Your task to perform on an android device: clear all cookies in the chrome app Image 0: 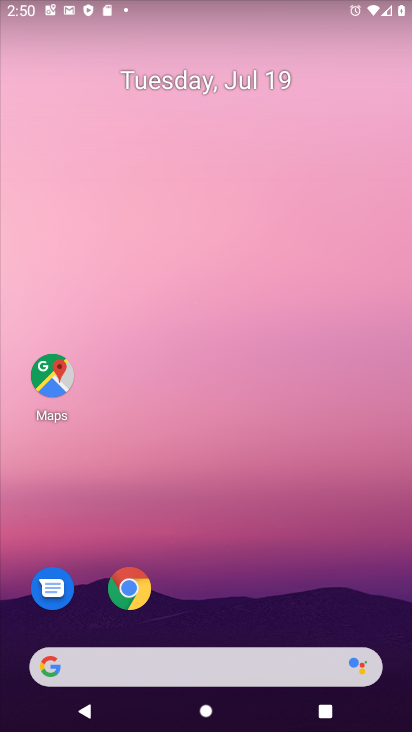
Step 0: drag from (253, 236) to (229, 116)
Your task to perform on an android device: clear all cookies in the chrome app Image 1: 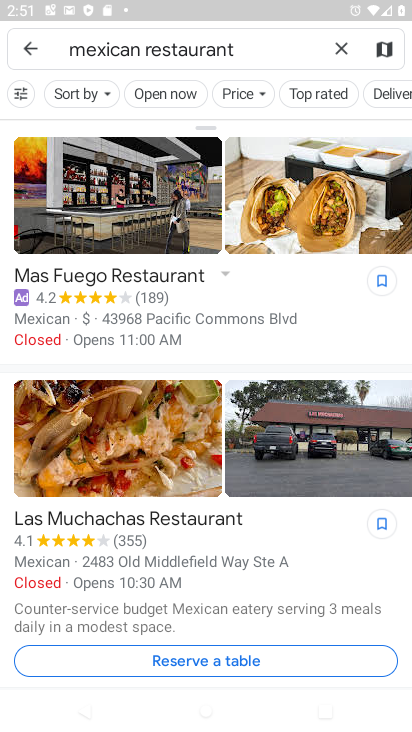
Step 1: press home button
Your task to perform on an android device: clear all cookies in the chrome app Image 2: 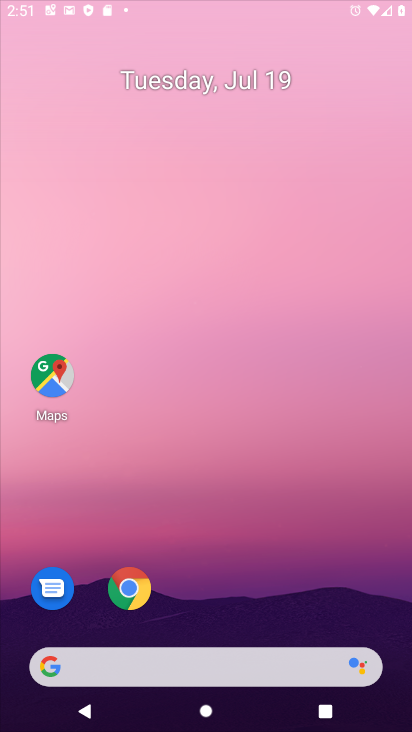
Step 2: drag from (375, 636) to (241, 103)
Your task to perform on an android device: clear all cookies in the chrome app Image 3: 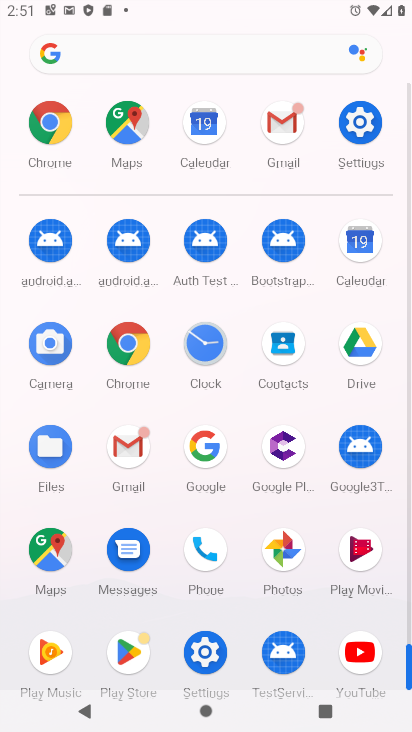
Step 3: click (131, 355)
Your task to perform on an android device: clear all cookies in the chrome app Image 4: 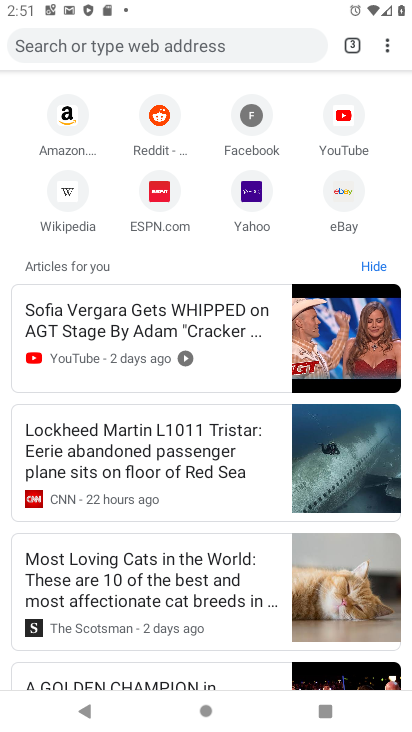
Step 4: click (385, 48)
Your task to perform on an android device: clear all cookies in the chrome app Image 5: 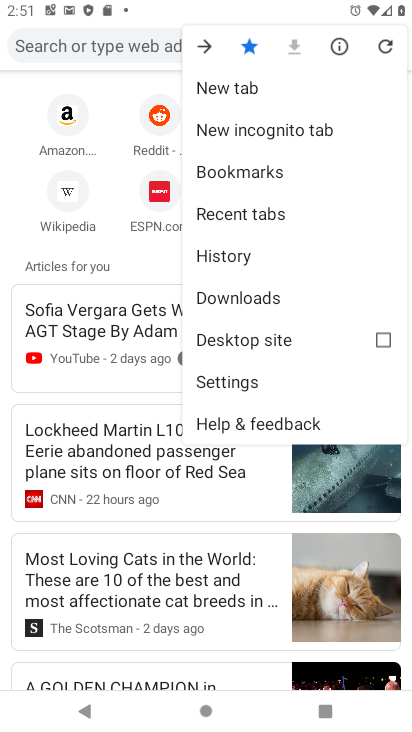
Step 5: click (233, 256)
Your task to perform on an android device: clear all cookies in the chrome app Image 6: 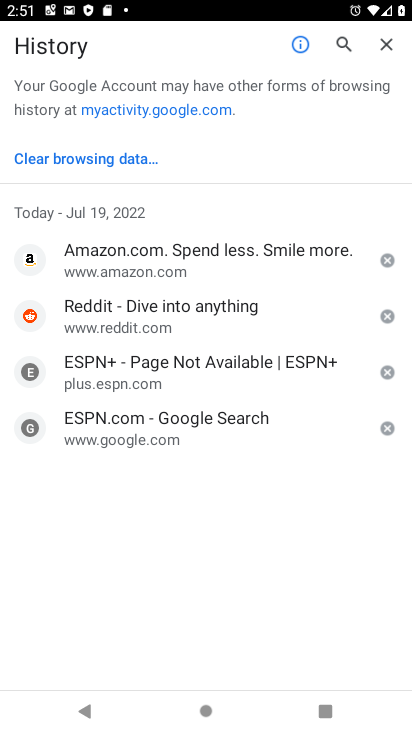
Step 6: click (115, 167)
Your task to perform on an android device: clear all cookies in the chrome app Image 7: 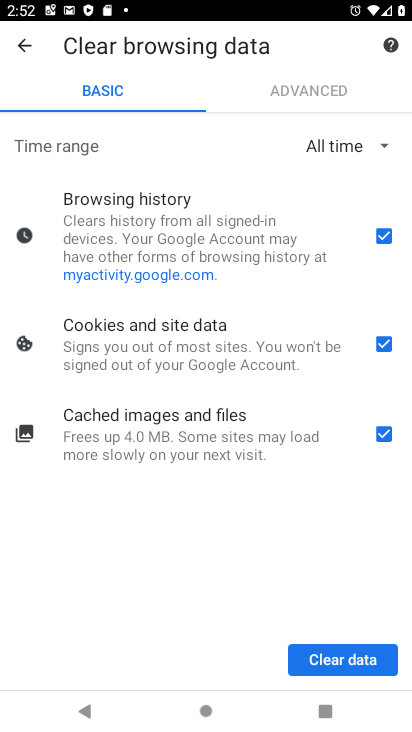
Step 7: click (329, 659)
Your task to perform on an android device: clear all cookies in the chrome app Image 8: 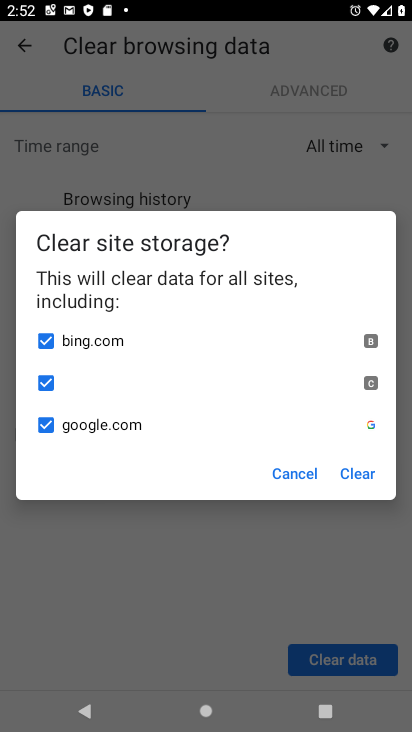
Step 8: click (355, 476)
Your task to perform on an android device: clear all cookies in the chrome app Image 9: 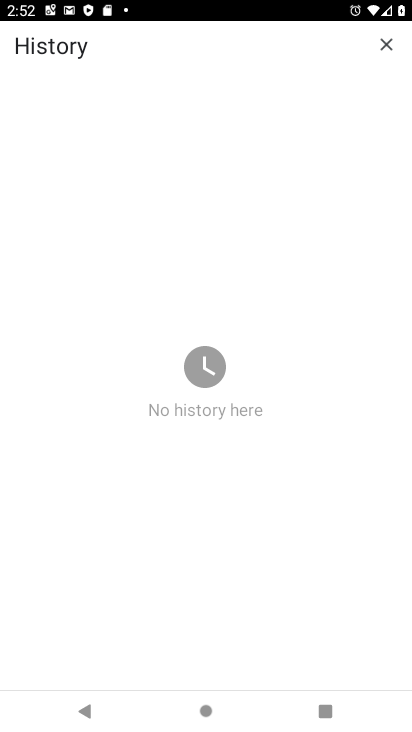
Step 9: task complete